Your task to perform on an android device: toggle airplane mode Image 0: 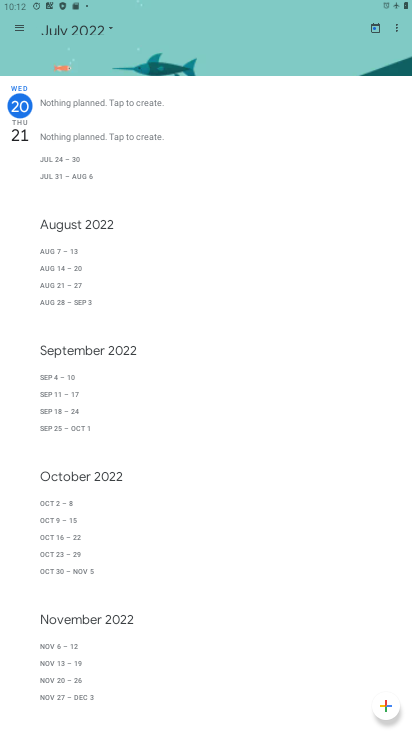
Step 0: press home button
Your task to perform on an android device: toggle airplane mode Image 1: 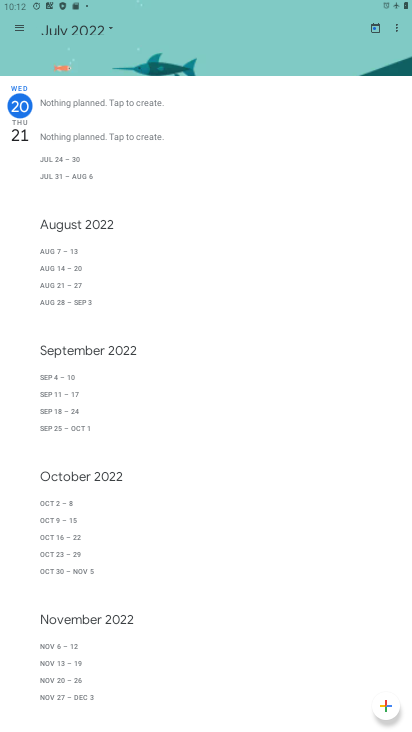
Step 1: press home button
Your task to perform on an android device: toggle airplane mode Image 2: 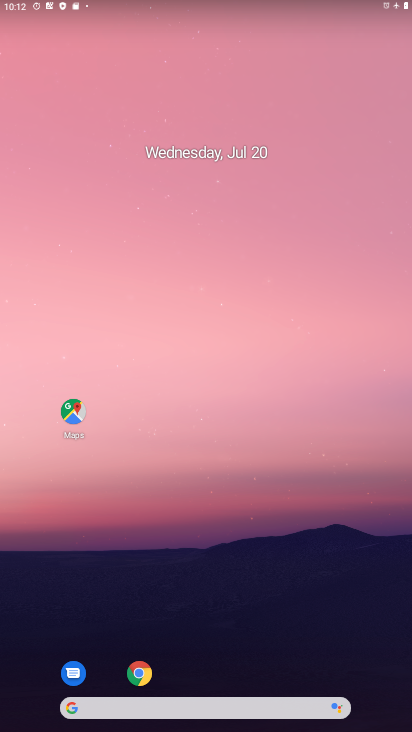
Step 2: drag from (211, 724) to (219, 7)
Your task to perform on an android device: toggle airplane mode Image 3: 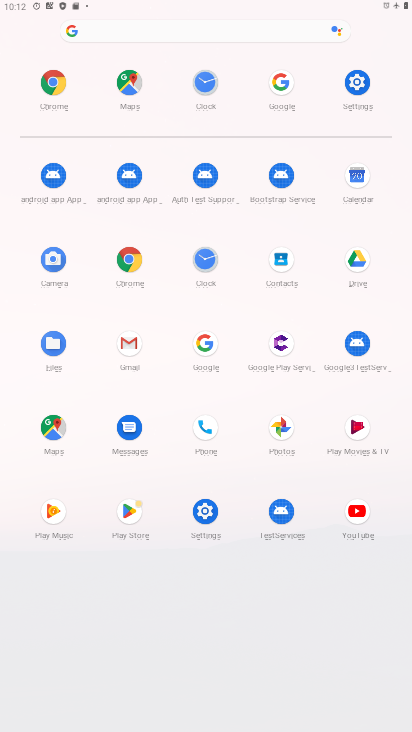
Step 3: click (368, 80)
Your task to perform on an android device: toggle airplane mode Image 4: 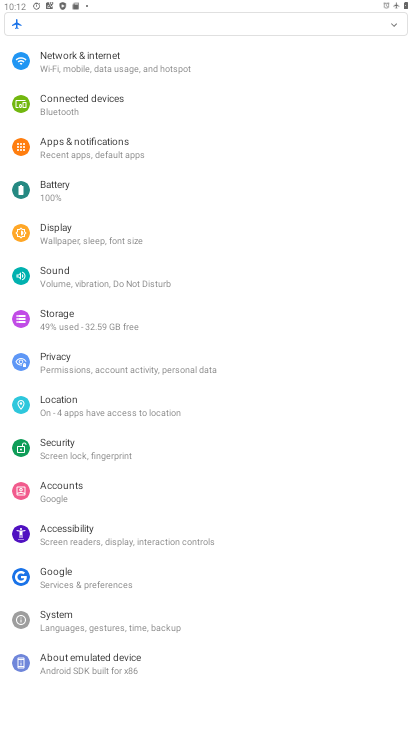
Step 4: click (96, 64)
Your task to perform on an android device: toggle airplane mode Image 5: 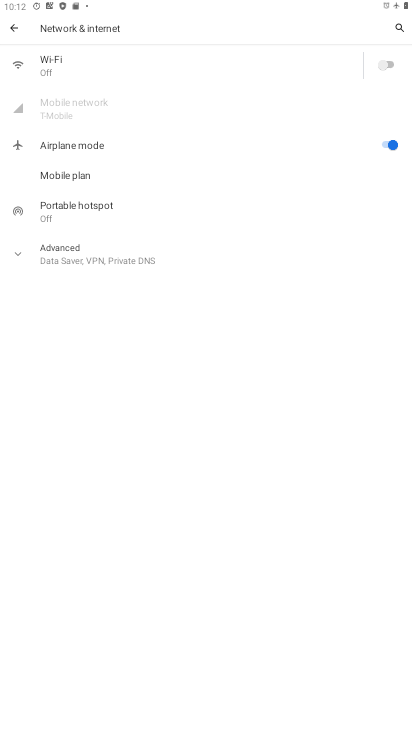
Step 5: click (391, 144)
Your task to perform on an android device: toggle airplane mode Image 6: 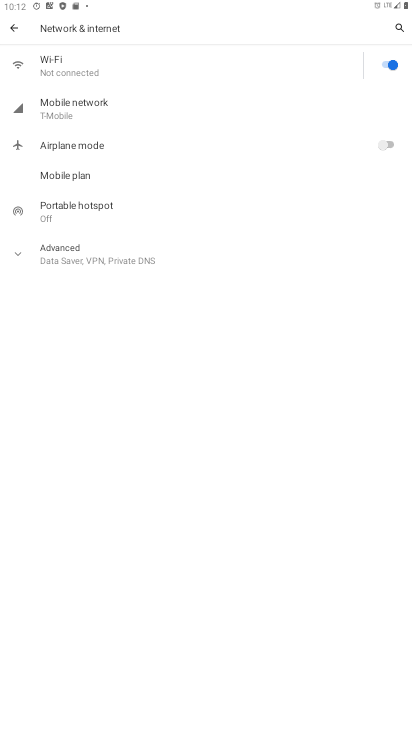
Step 6: task complete